Your task to perform on an android device: turn off javascript in the chrome app Image 0: 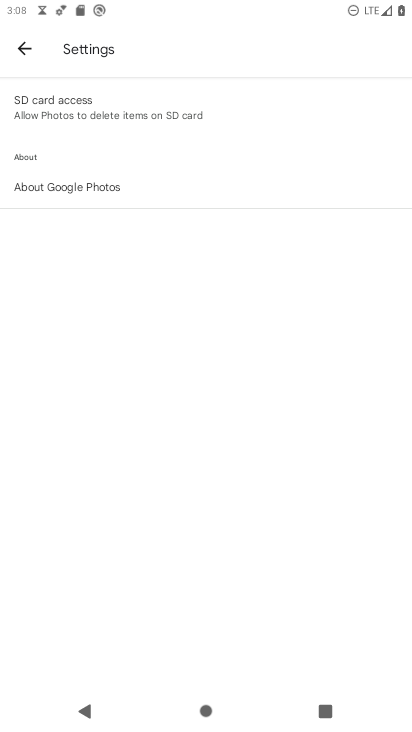
Step 0: press home button
Your task to perform on an android device: turn off javascript in the chrome app Image 1: 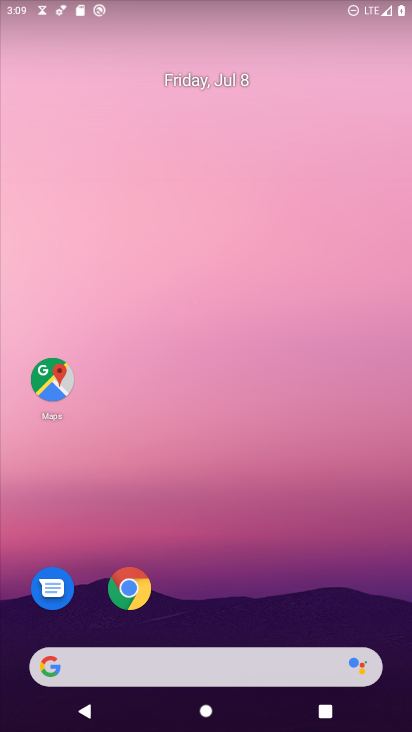
Step 1: drag from (182, 522) to (149, 14)
Your task to perform on an android device: turn off javascript in the chrome app Image 2: 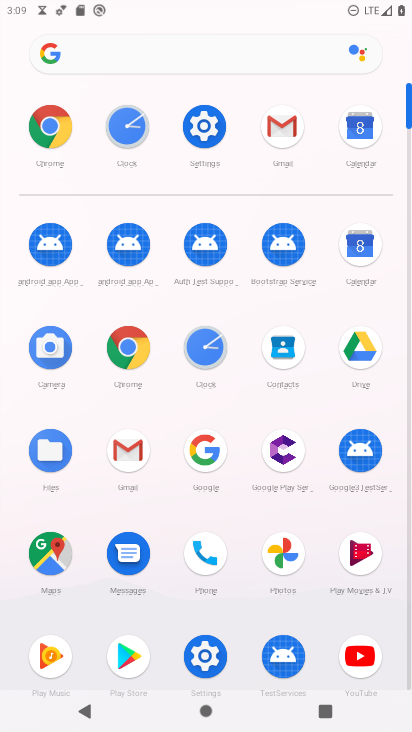
Step 2: click (49, 137)
Your task to perform on an android device: turn off javascript in the chrome app Image 3: 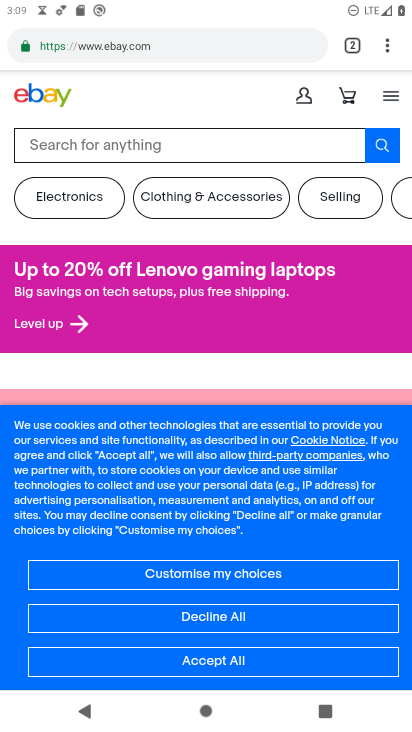
Step 3: click (388, 45)
Your task to perform on an android device: turn off javascript in the chrome app Image 4: 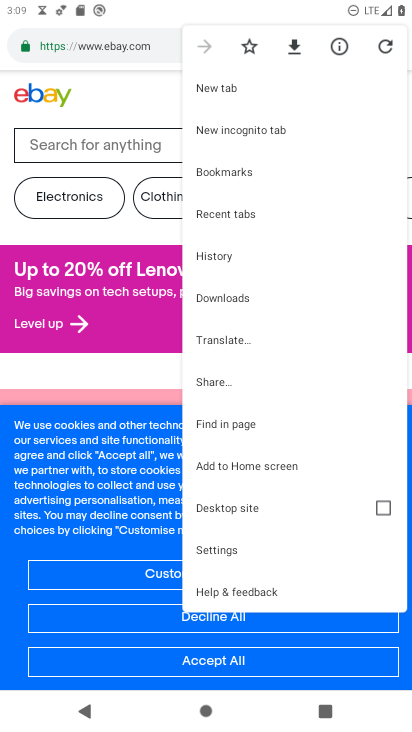
Step 4: click (210, 551)
Your task to perform on an android device: turn off javascript in the chrome app Image 5: 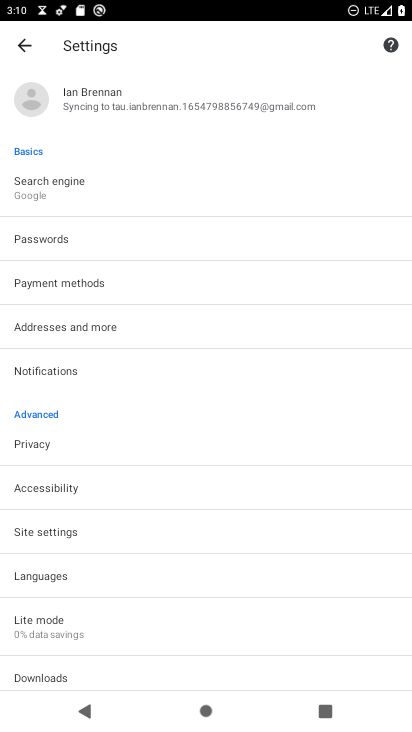
Step 5: click (94, 523)
Your task to perform on an android device: turn off javascript in the chrome app Image 6: 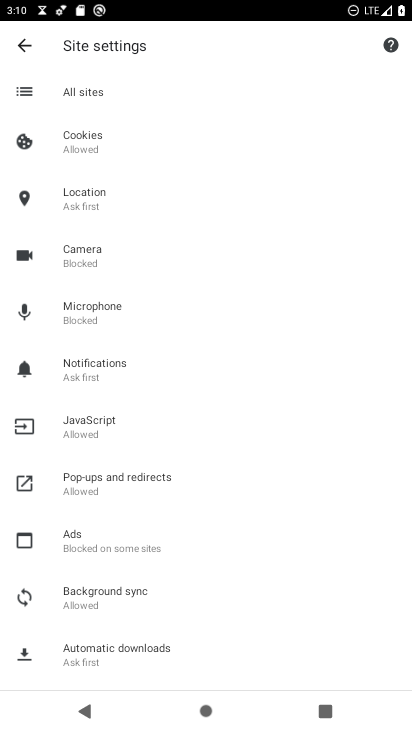
Step 6: click (94, 436)
Your task to perform on an android device: turn off javascript in the chrome app Image 7: 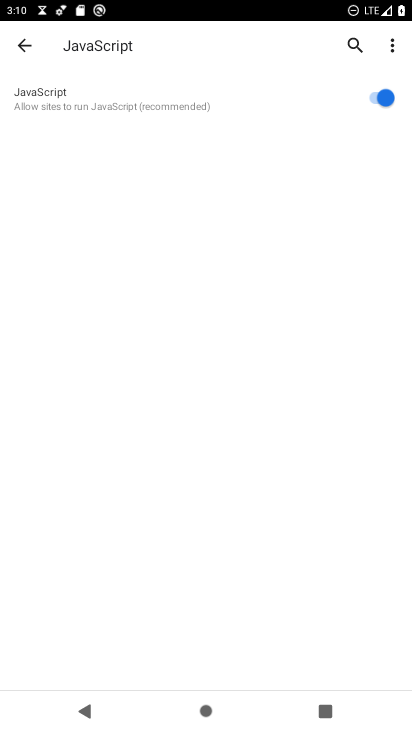
Step 7: click (374, 102)
Your task to perform on an android device: turn off javascript in the chrome app Image 8: 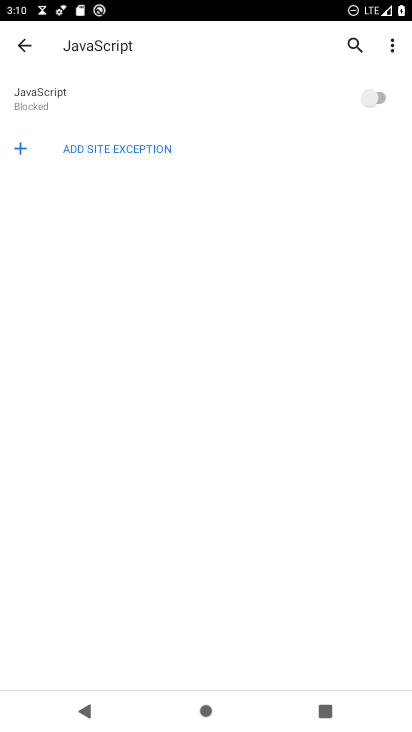
Step 8: task complete